Your task to perform on an android device: Open Google Chrome and click the shortcut for Amazon.com Image 0: 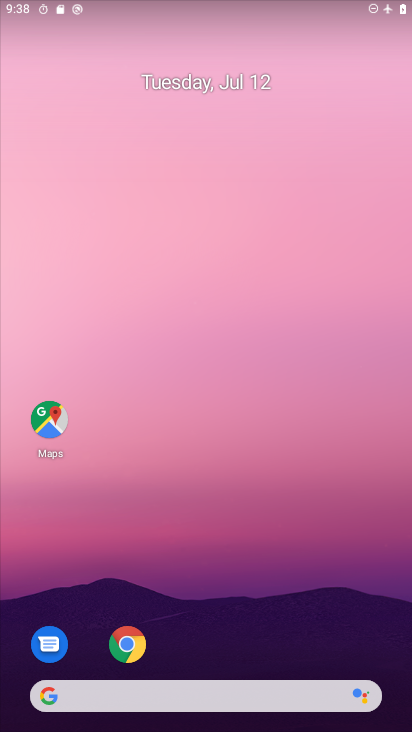
Step 0: click (130, 676)
Your task to perform on an android device: Open Google Chrome and click the shortcut for Amazon.com Image 1: 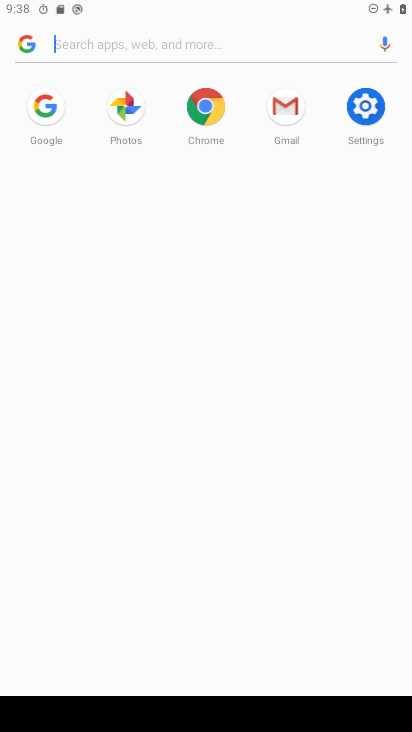
Step 1: click (215, 112)
Your task to perform on an android device: Open Google Chrome and click the shortcut for Amazon.com Image 2: 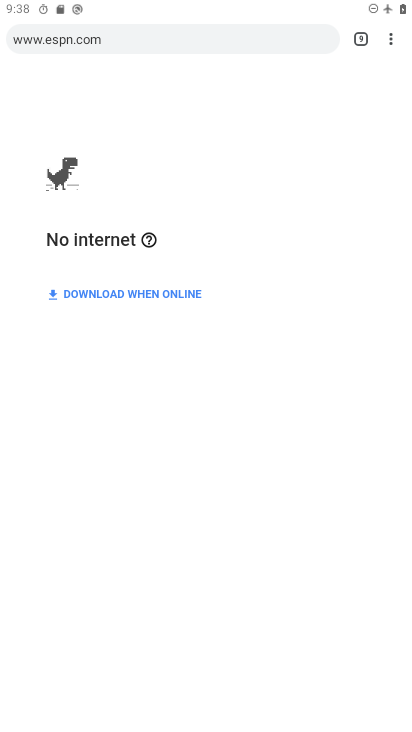
Step 2: click (364, 25)
Your task to perform on an android device: Open Google Chrome and click the shortcut for Amazon.com Image 3: 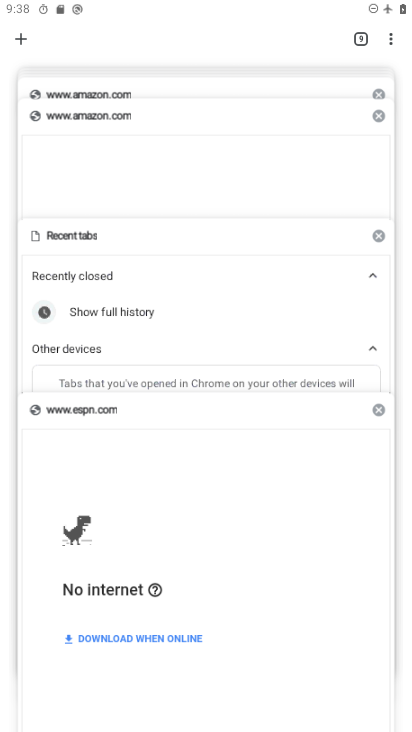
Step 3: click (15, 43)
Your task to perform on an android device: Open Google Chrome and click the shortcut for Amazon.com Image 4: 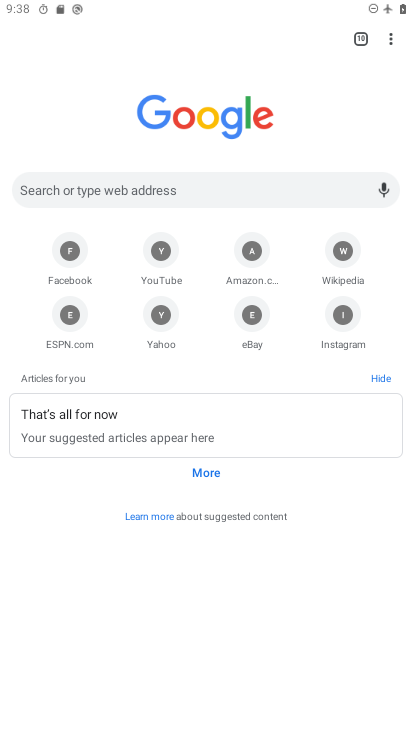
Step 4: click (258, 243)
Your task to perform on an android device: Open Google Chrome and click the shortcut for Amazon.com Image 5: 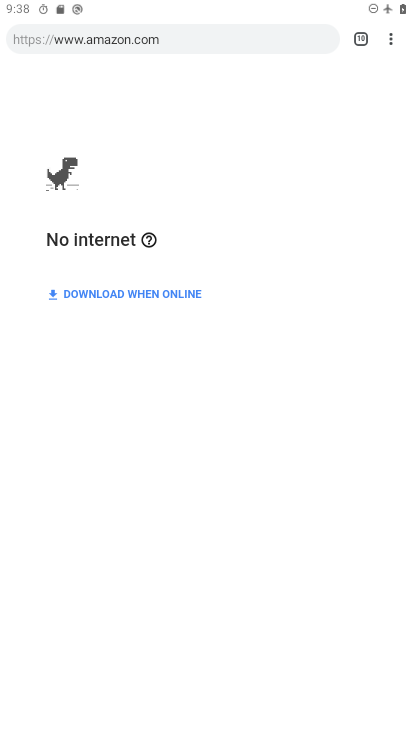
Step 5: task complete